Your task to perform on an android device: Go to Wikipedia Image 0: 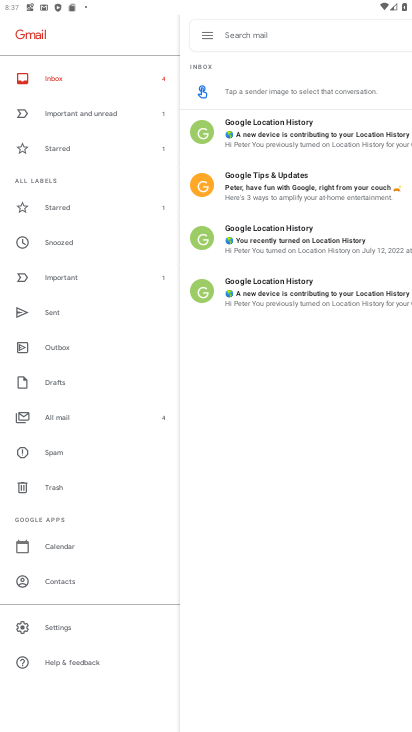
Step 0: press home button
Your task to perform on an android device: Go to Wikipedia Image 1: 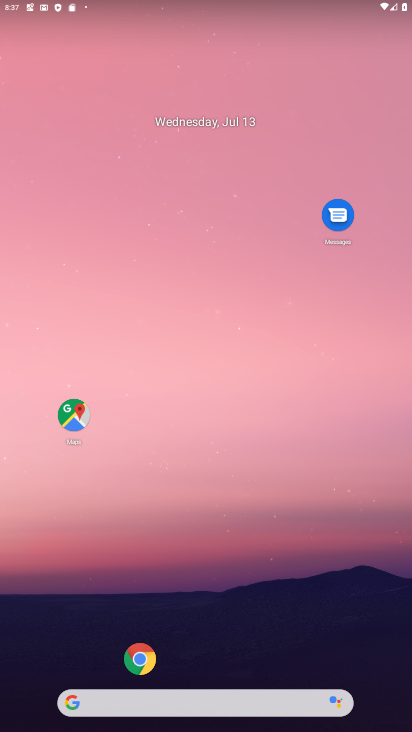
Step 1: click (103, 695)
Your task to perform on an android device: Go to Wikipedia Image 2: 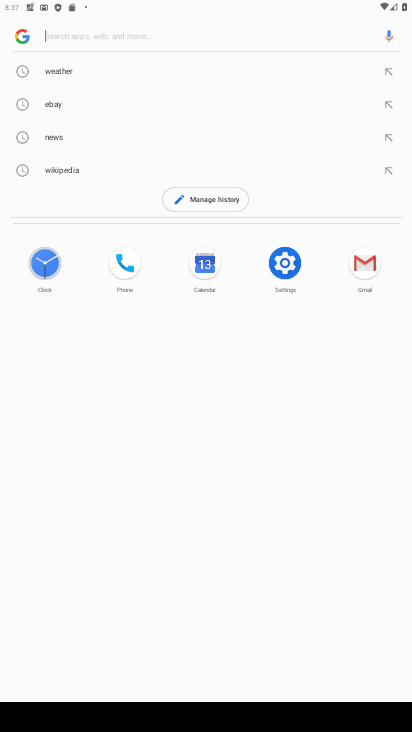
Step 2: type "Wikipedia"
Your task to perform on an android device: Go to Wikipedia Image 3: 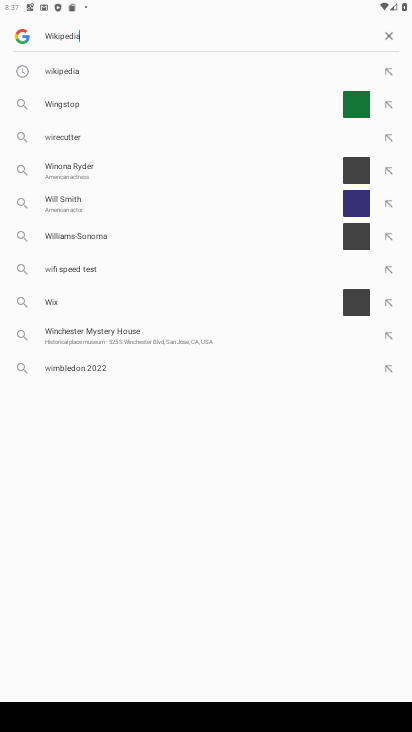
Step 3: type ""
Your task to perform on an android device: Go to Wikipedia Image 4: 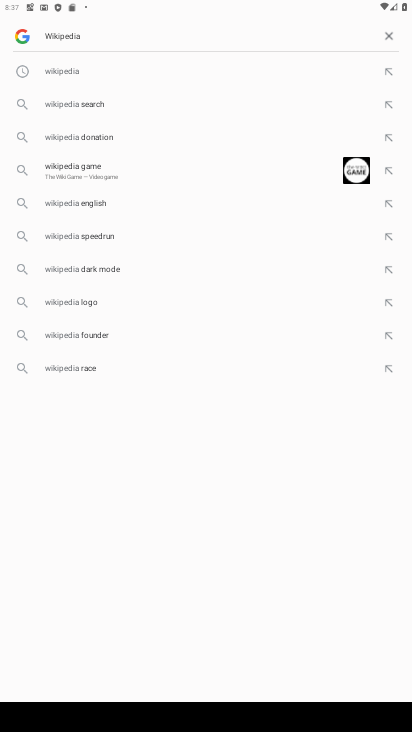
Step 4: click (69, 74)
Your task to perform on an android device: Go to Wikipedia Image 5: 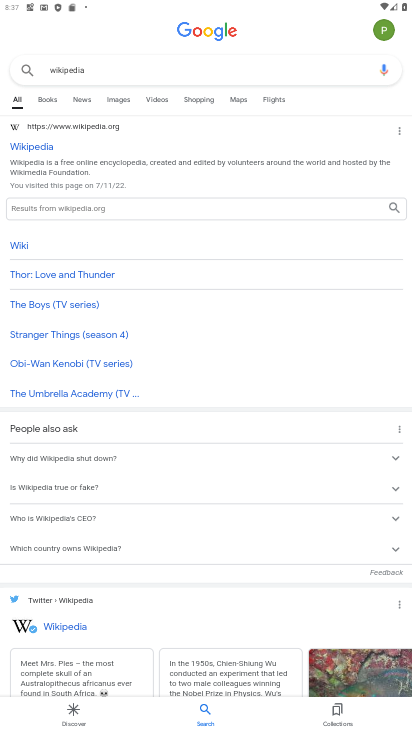
Step 5: task complete